Your task to perform on an android device: change the clock display to digital Image 0: 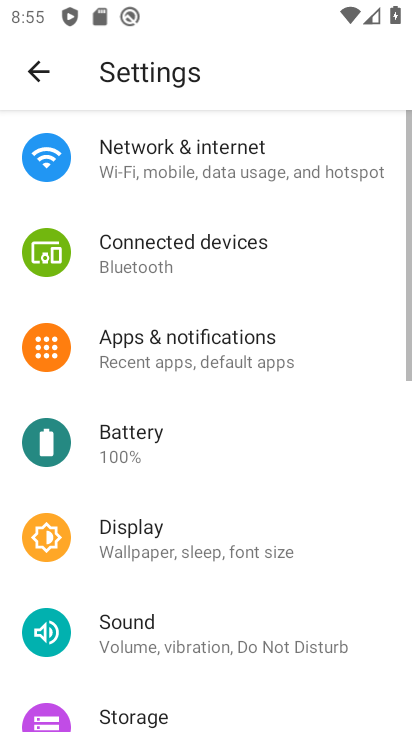
Step 0: press home button
Your task to perform on an android device: change the clock display to digital Image 1: 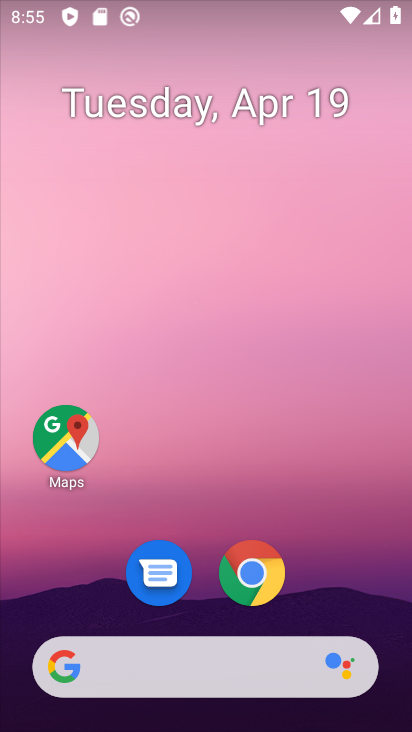
Step 1: drag from (328, 579) to (298, 8)
Your task to perform on an android device: change the clock display to digital Image 2: 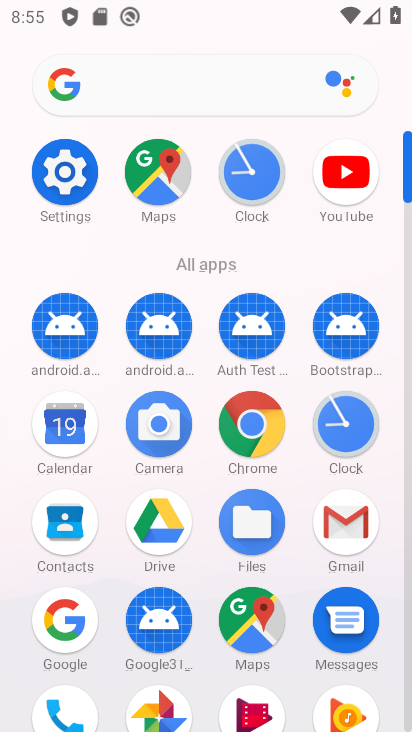
Step 2: click (253, 178)
Your task to perform on an android device: change the clock display to digital Image 3: 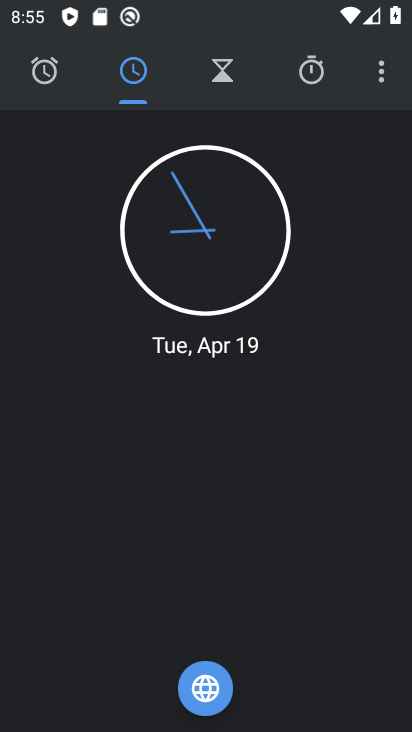
Step 3: click (380, 70)
Your task to perform on an android device: change the clock display to digital Image 4: 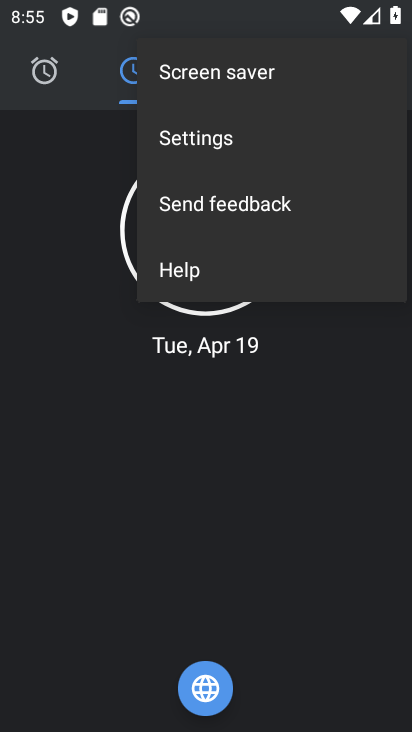
Step 4: click (225, 144)
Your task to perform on an android device: change the clock display to digital Image 5: 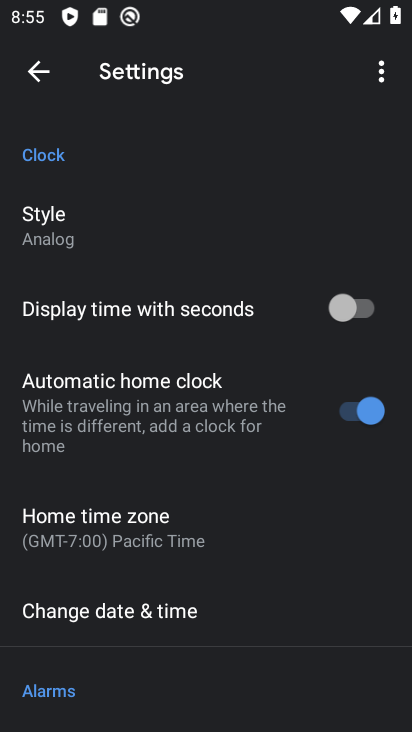
Step 5: click (189, 231)
Your task to perform on an android device: change the clock display to digital Image 6: 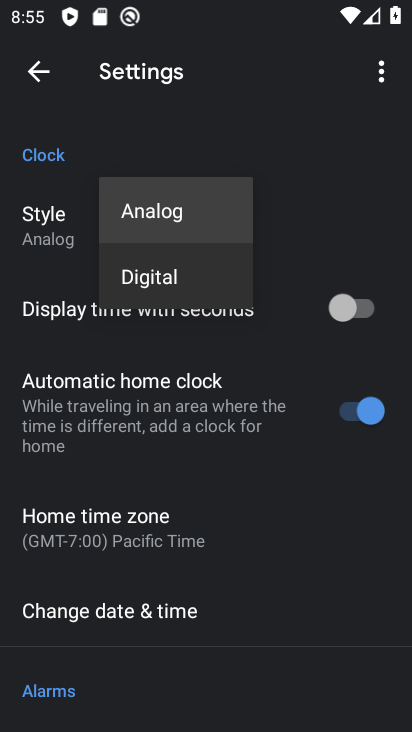
Step 6: click (180, 272)
Your task to perform on an android device: change the clock display to digital Image 7: 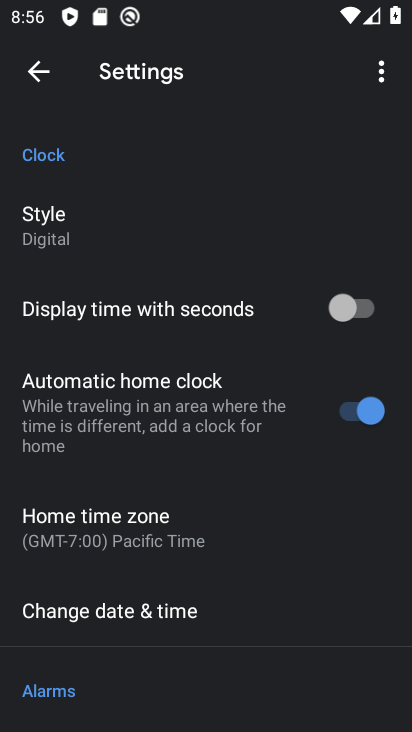
Step 7: task complete